Your task to perform on an android device: Open Wikipedia Image 0: 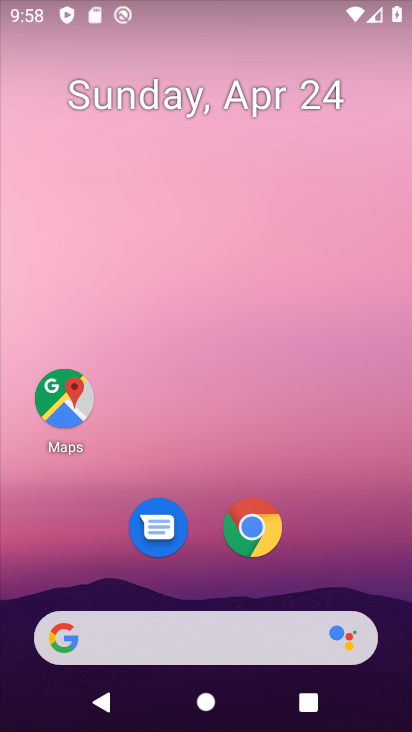
Step 0: click (248, 527)
Your task to perform on an android device: Open Wikipedia Image 1: 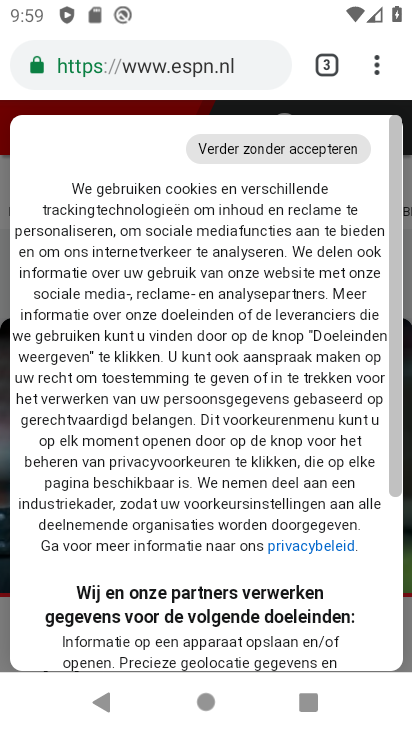
Step 1: task complete